Your task to perform on an android device: turn on showing notifications on the lock screen Image 0: 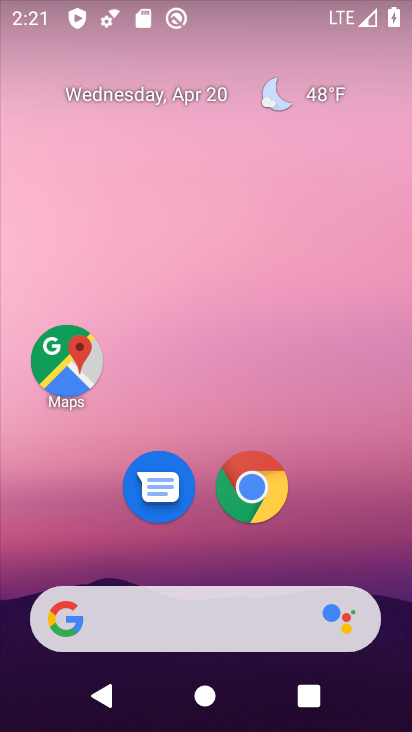
Step 0: drag from (210, 580) to (185, 219)
Your task to perform on an android device: turn on showing notifications on the lock screen Image 1: 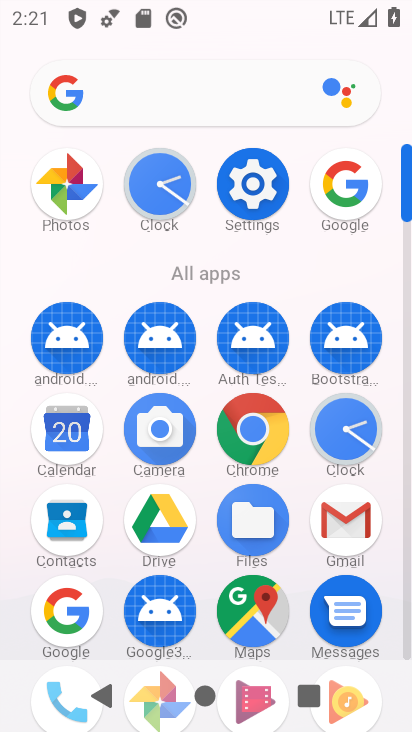
Step 1: click (247, 192)
Your task to perform on an android device: turn on showing notifications on the lock screen Image 2: 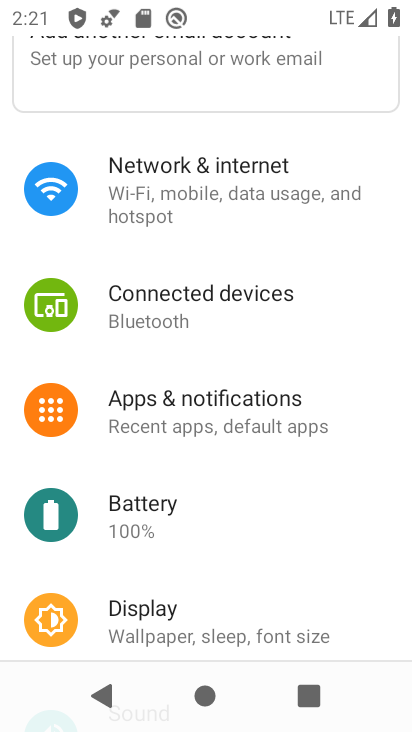
Step 2: drag from (168, 624) to (158, 244)
Your task to perform on an android device: turn on showing notifications on the lock screen Image 3: 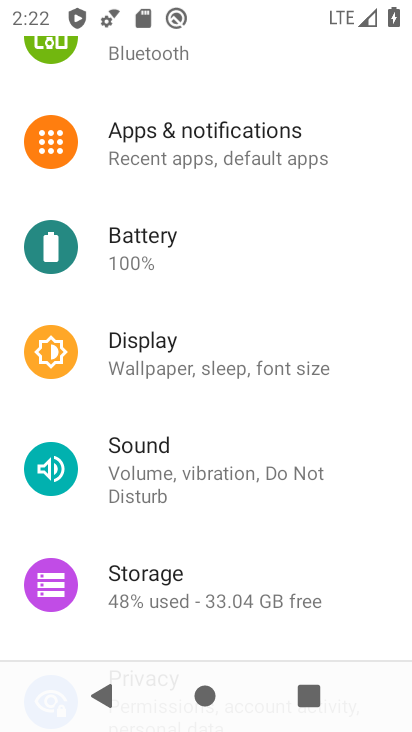
Step 3: drag from (177, 568) to (175, 354)
Your task to perform on an android device: turn on showing notifications on the lock screen Image 4: 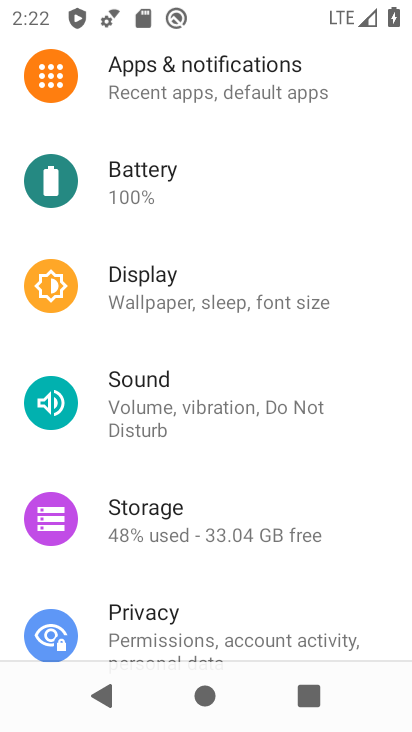
Step 4: drag from (209, 644) to (201, 376)
Your task to perform on an android device: turn on showing notifications on the lock screen Image 5: 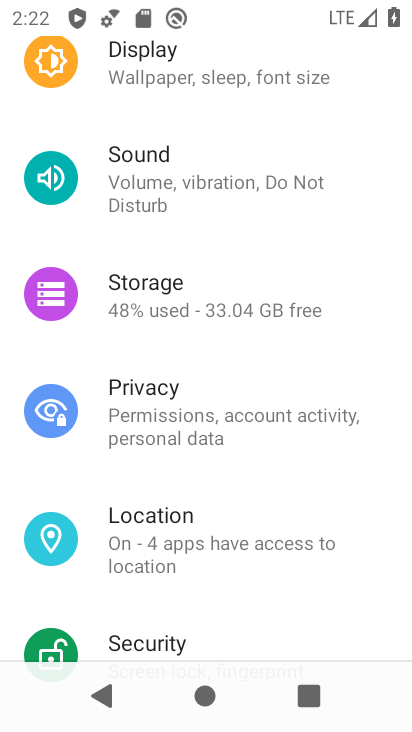
Step 5: click (155, 421)
Your task to perform on an android device: turn on showing notifications on the lock screen Image 6: 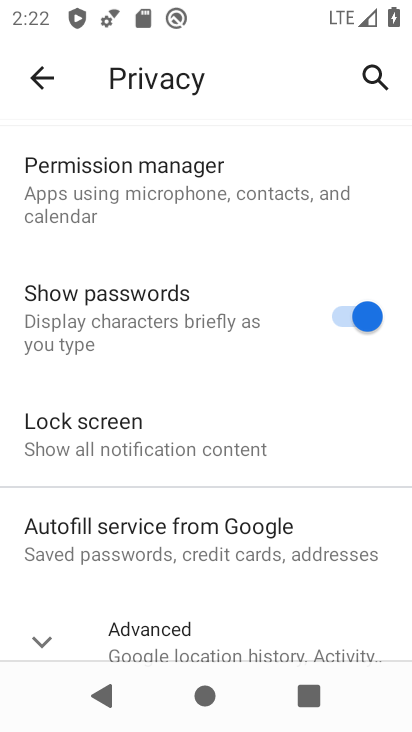
Step 6: click (114, 442)
Your task to perform on an android device: turn on showing notifications on the lock screen Image 7: 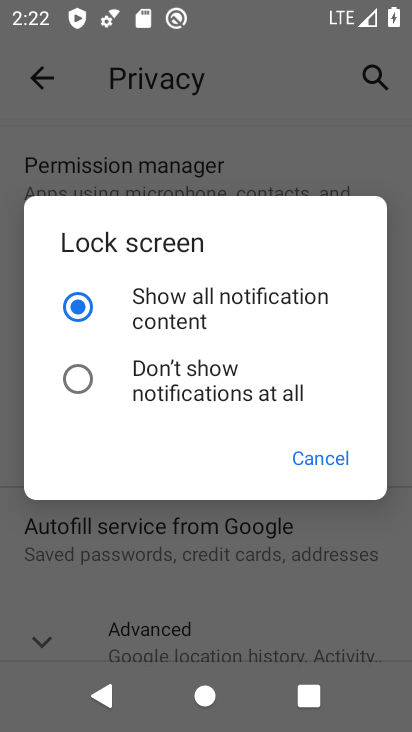
Step 7: click (332, 454)
Your task to perform on an android device: turn on showing notifications on the lock screen Image 8: 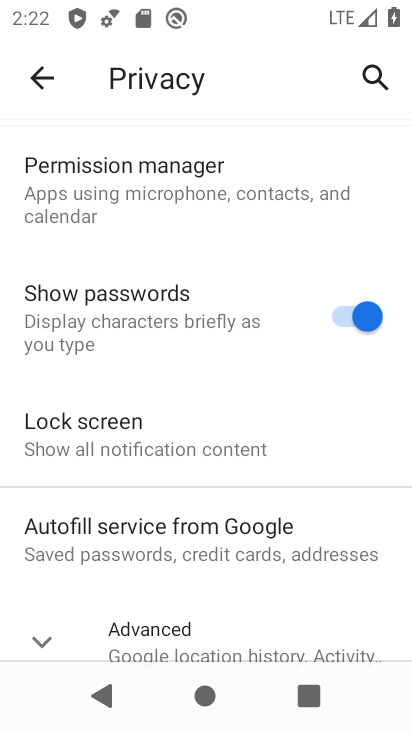
Step 8: task complete